Your task to perform on an android device: Open wifi settings Image 0: 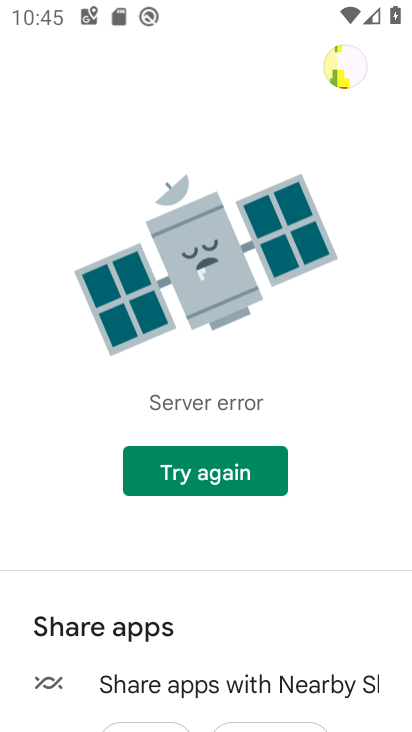
Step 0: press home button
Your task to perform on an android device: Open wifi settings Image 1: 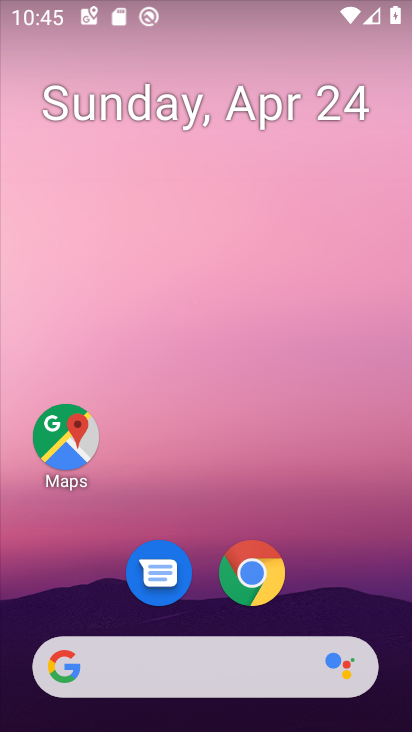
Step 1: drag from (347, 566) to (411, 213)
Your task to perform on an android device: Open wifi settings Image 2: 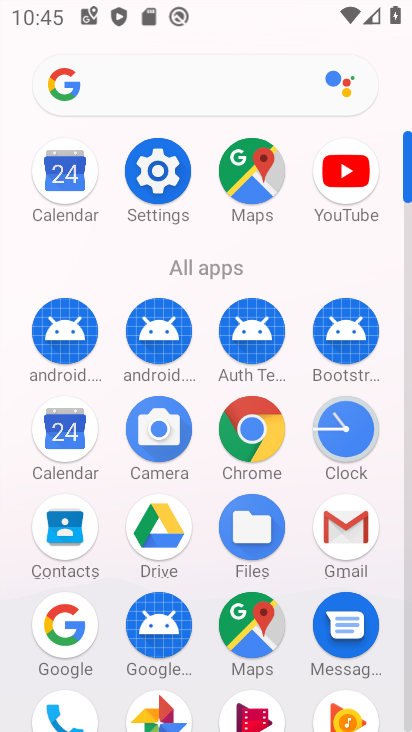
Step 2: click (170, 163)
Your task to perform on an android device: Open wifi settings Image 3: 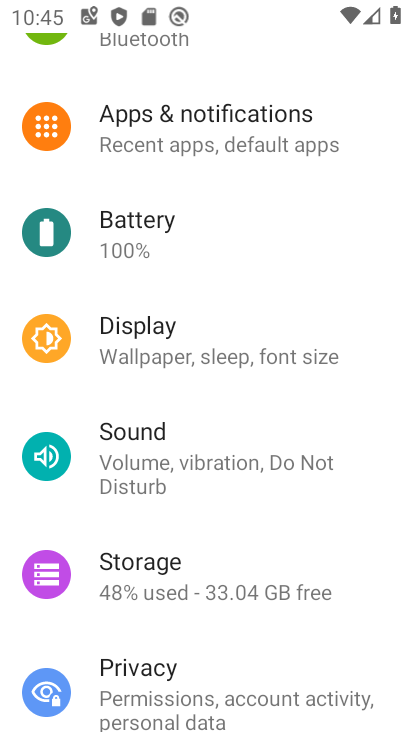
Step 3: drag from (169, 181) to (205, 284)
Your task to perform on an android device: Open wifi settings Image 4: 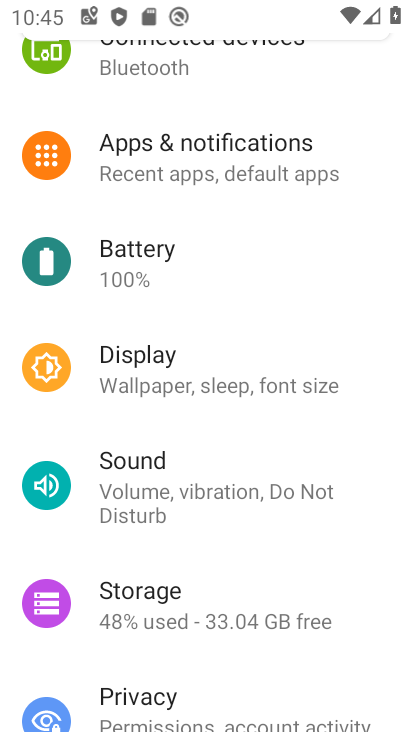
Step 4: drag from (204, 241) to (209, 309)
Your task to perform on an android device: Open wifi settings Image 5: 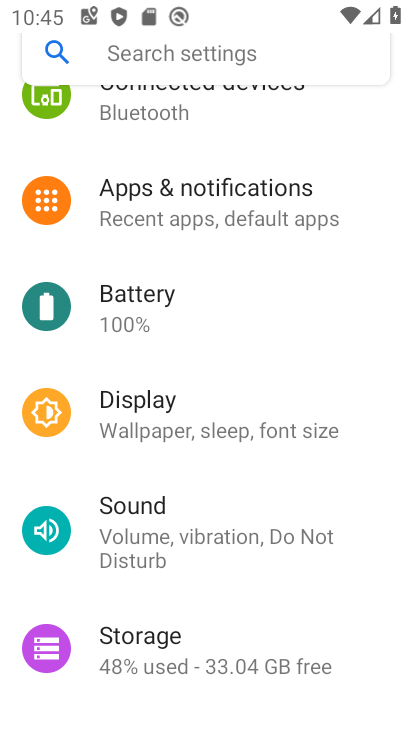
Step 5: drag from (217, 235) to (227, 293)
Your task to perform on an android device: Open wifi settings Image 6: 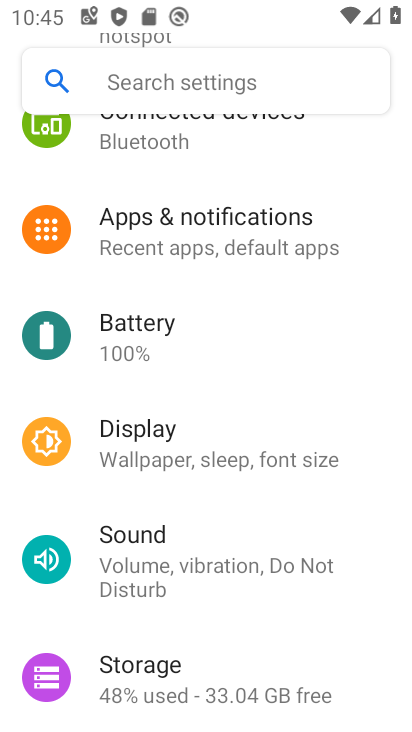
Step 6: drag from (236, 236) to (270, 302)
Your task to perform on an android device: Open wifi settings Image 7: 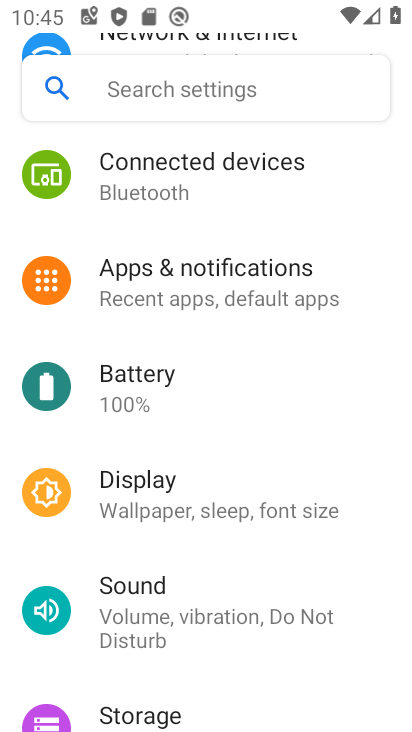
Step 7: drag from (266, 255) to (271, 305)
Your task to perform on an android device: Open wifi settings Image 8: 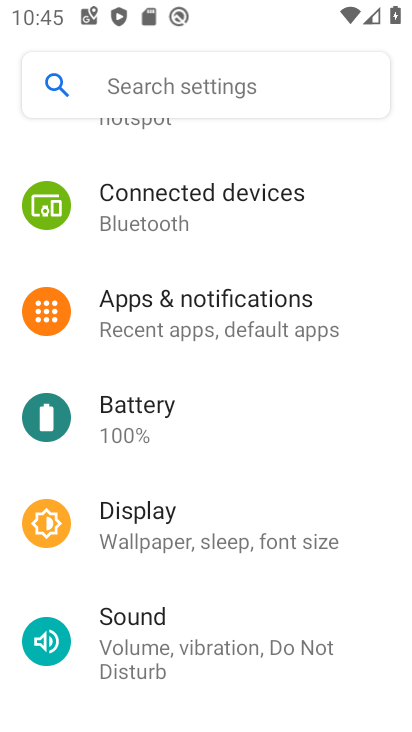
Step 8: drag from (266, 310) to (203, 529)
Your task to perform on an android device: Open wifi settings Image 9: 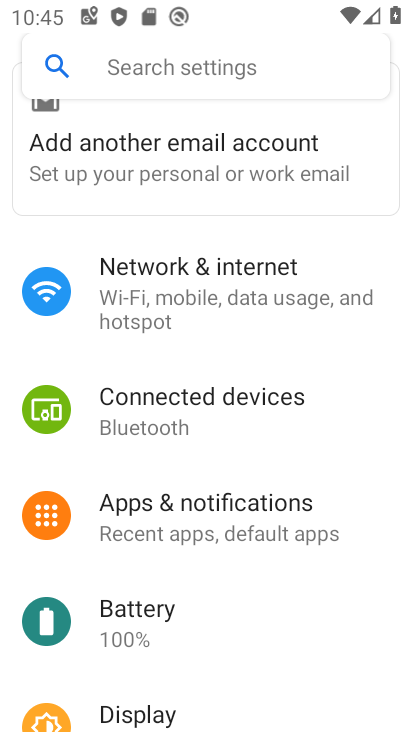
Step 9: click (204, 270)
Your task to perform on an android device: Open wifi settings Image 10: 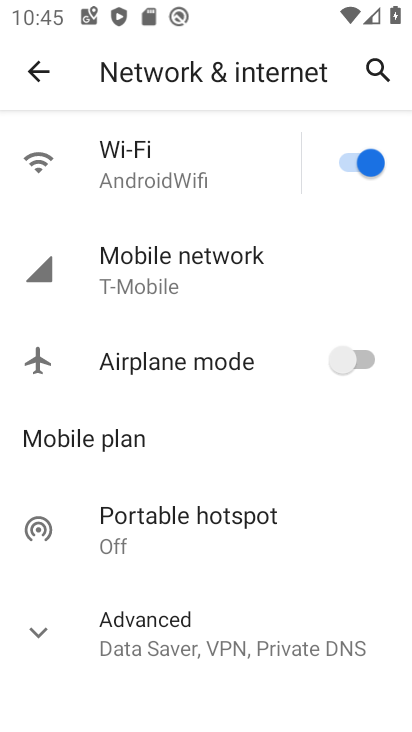
Step 10: click (111, 168)
Your task to perform on an android device: Open wifi settings Image 11: 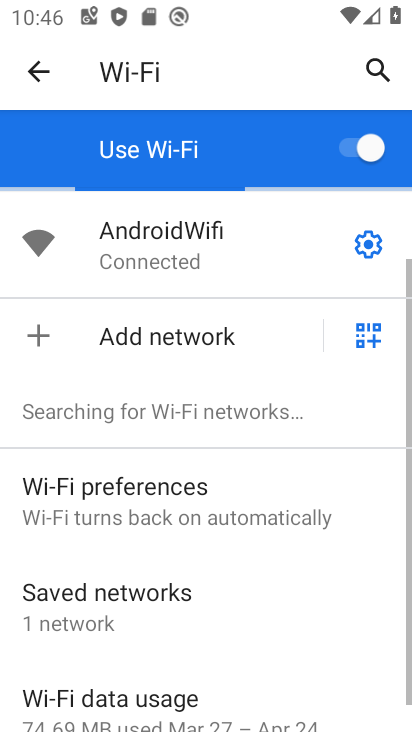
Step 11: task complete